Your task to perform on an android device: remove spam from my inbox in the gmail app Image 0: 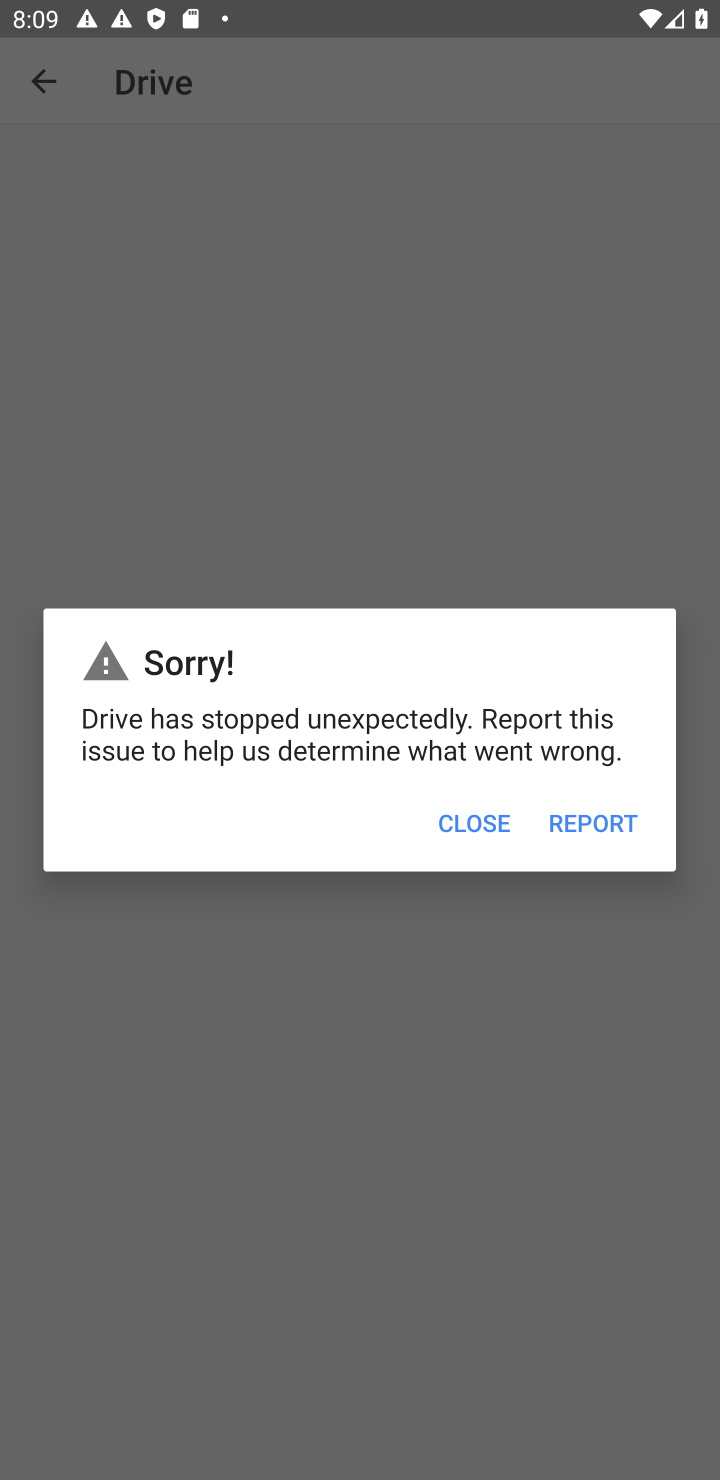
Step 0: press home button
Your task to perform on an android device: remove spam from my inbox in the gmail app Image 1: 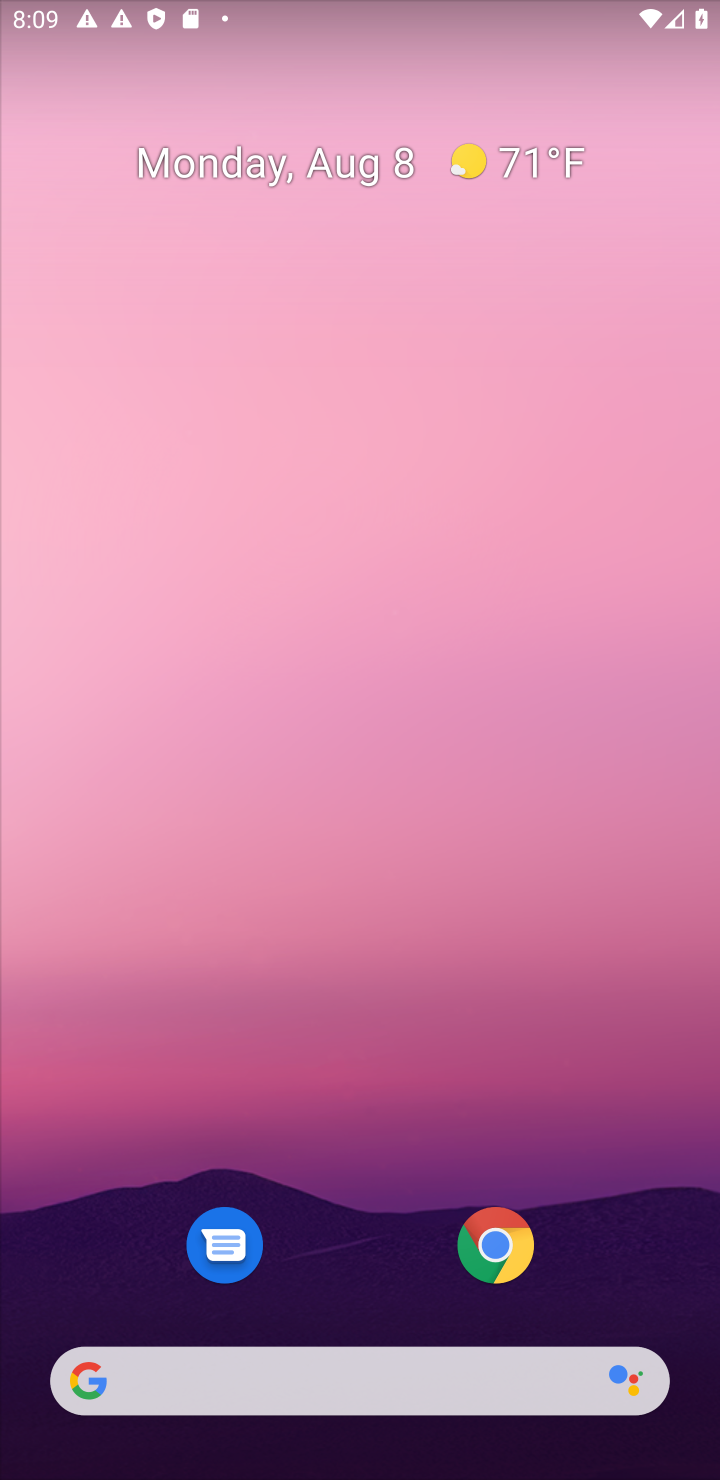
Step 1: drag from (324, 1319) to (279, 19)
Your task to perform on an android device: remove spam from my inbox in the gmail app Image 2: 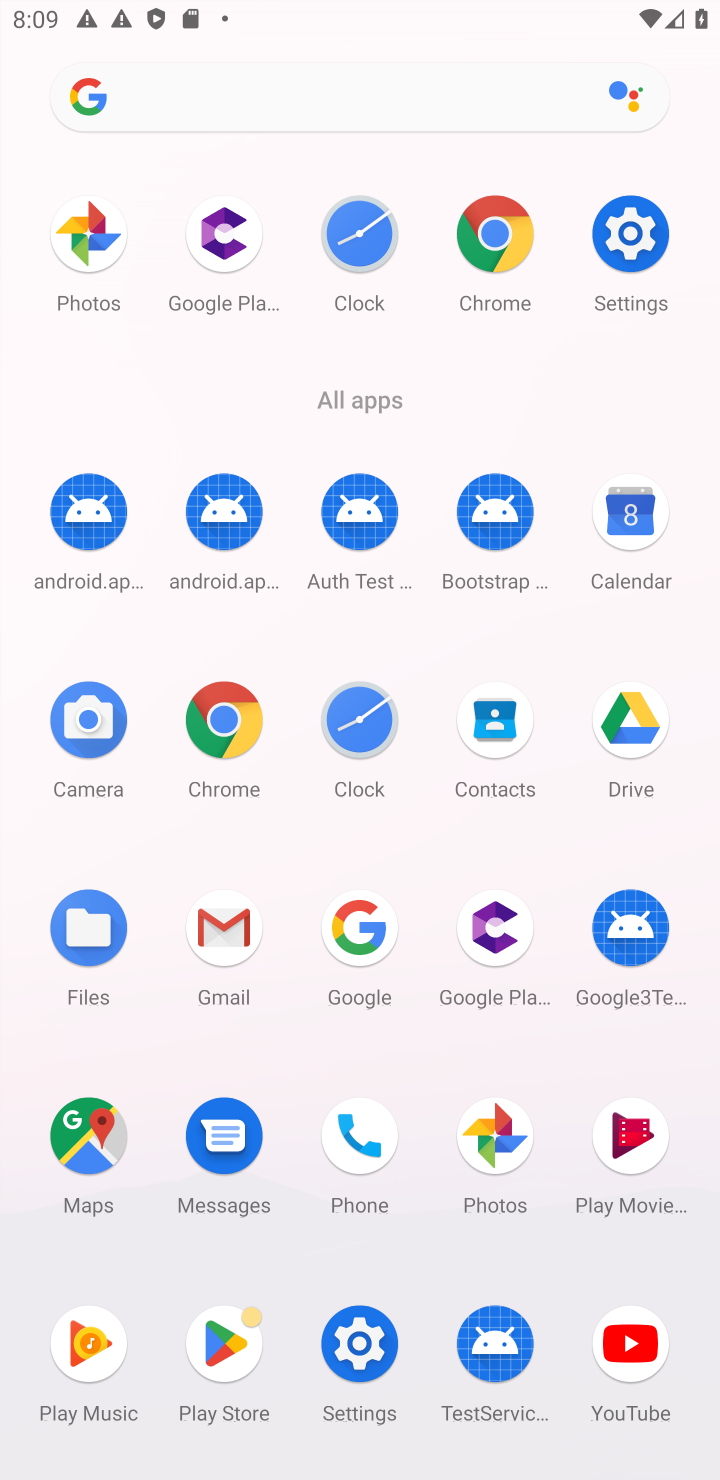
Step 2: click (221, 958)
Your task to perform on an android device: remove spam from my inbox in the gmail app Image 3: 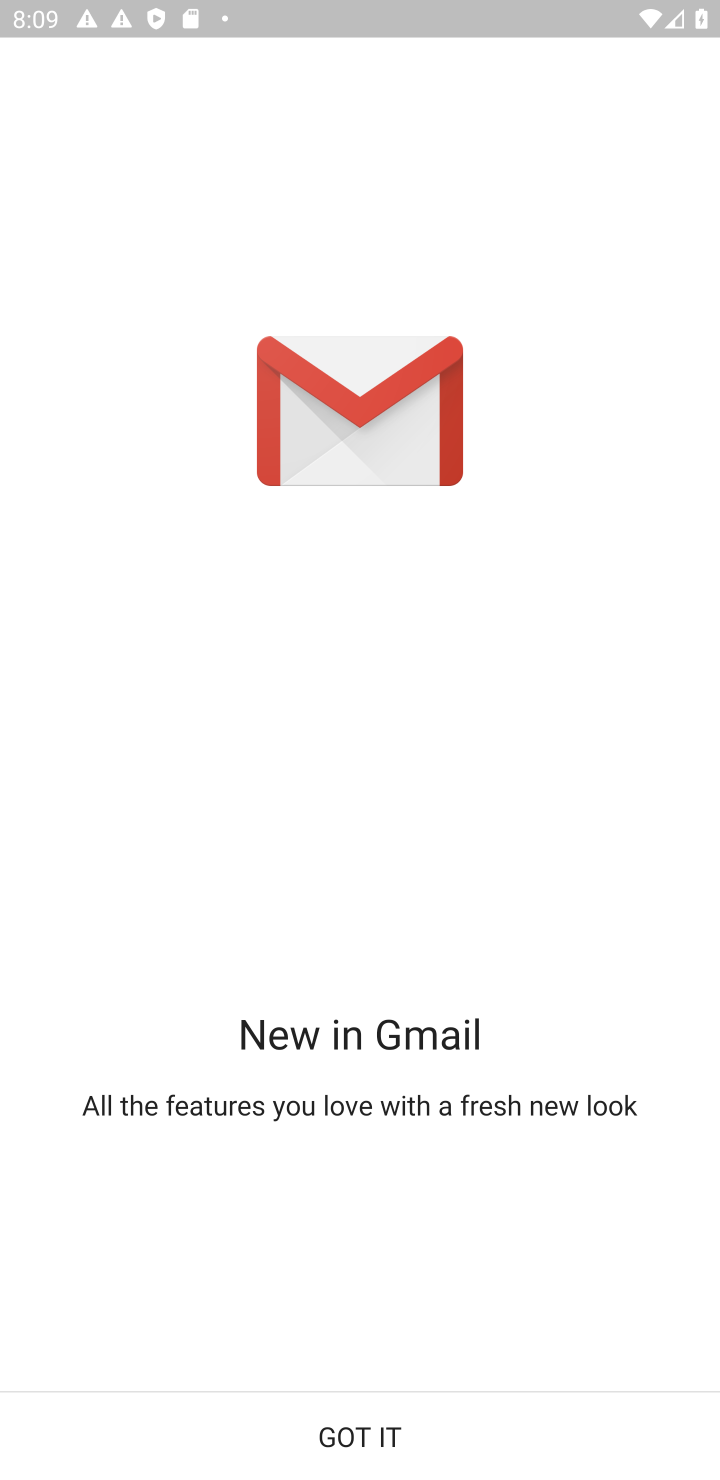
Step 3: click (349, 1436)
Your task to perform on an android device: remove spam from my inbox in the gmail app Image 4: 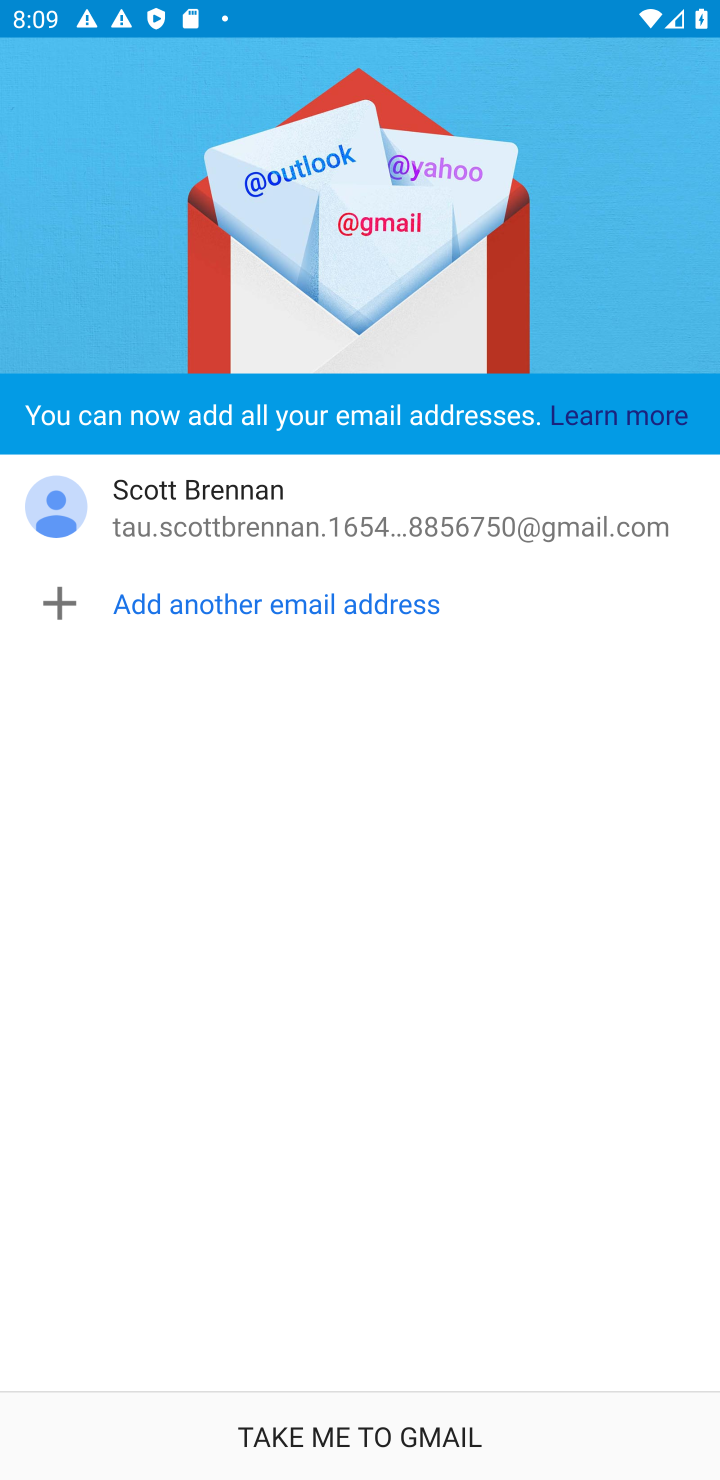
Step 4: click (349, 1428)
Your task to perform on an android device: remove spam from my inbox in the gmail app Image 5: 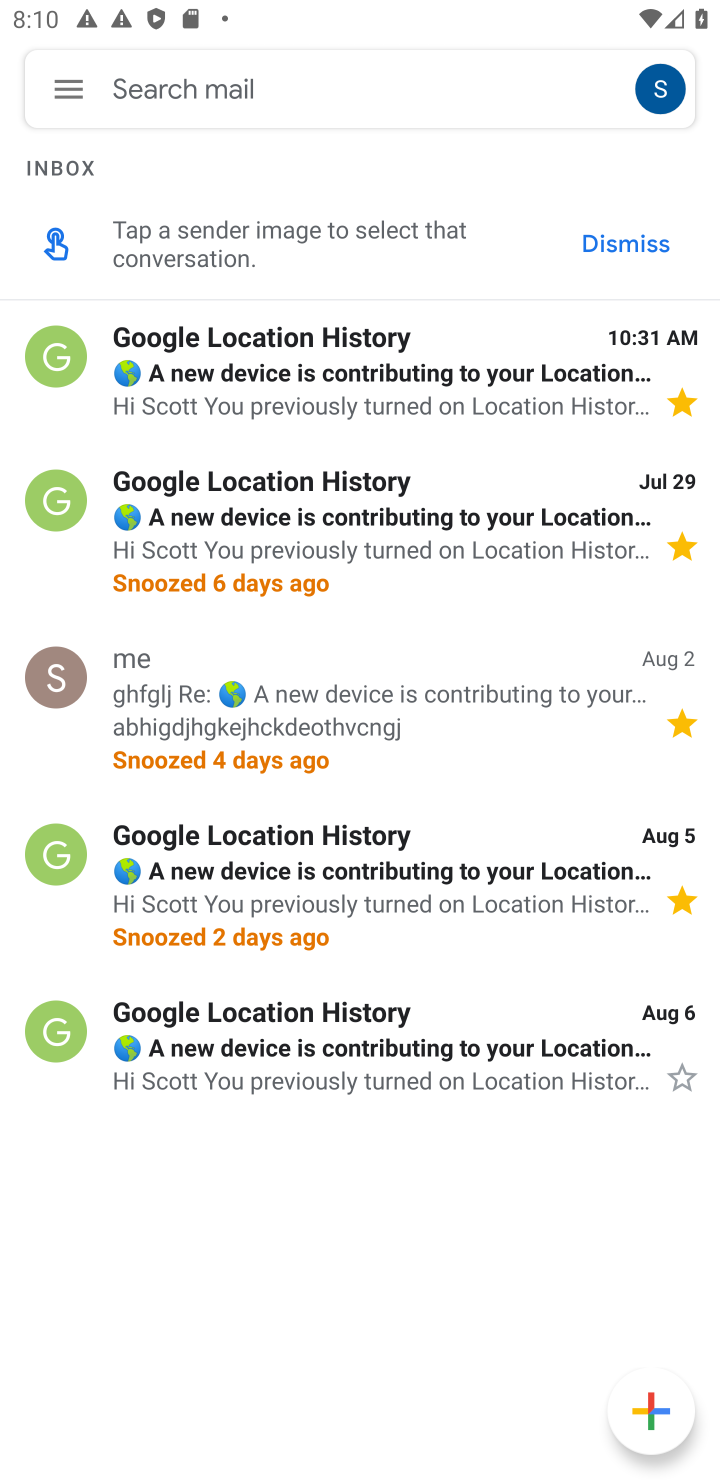
Step 5: click (72, 76)
Your task to perform on an android device: remove spam from my inbox in the gmail app Image 6: 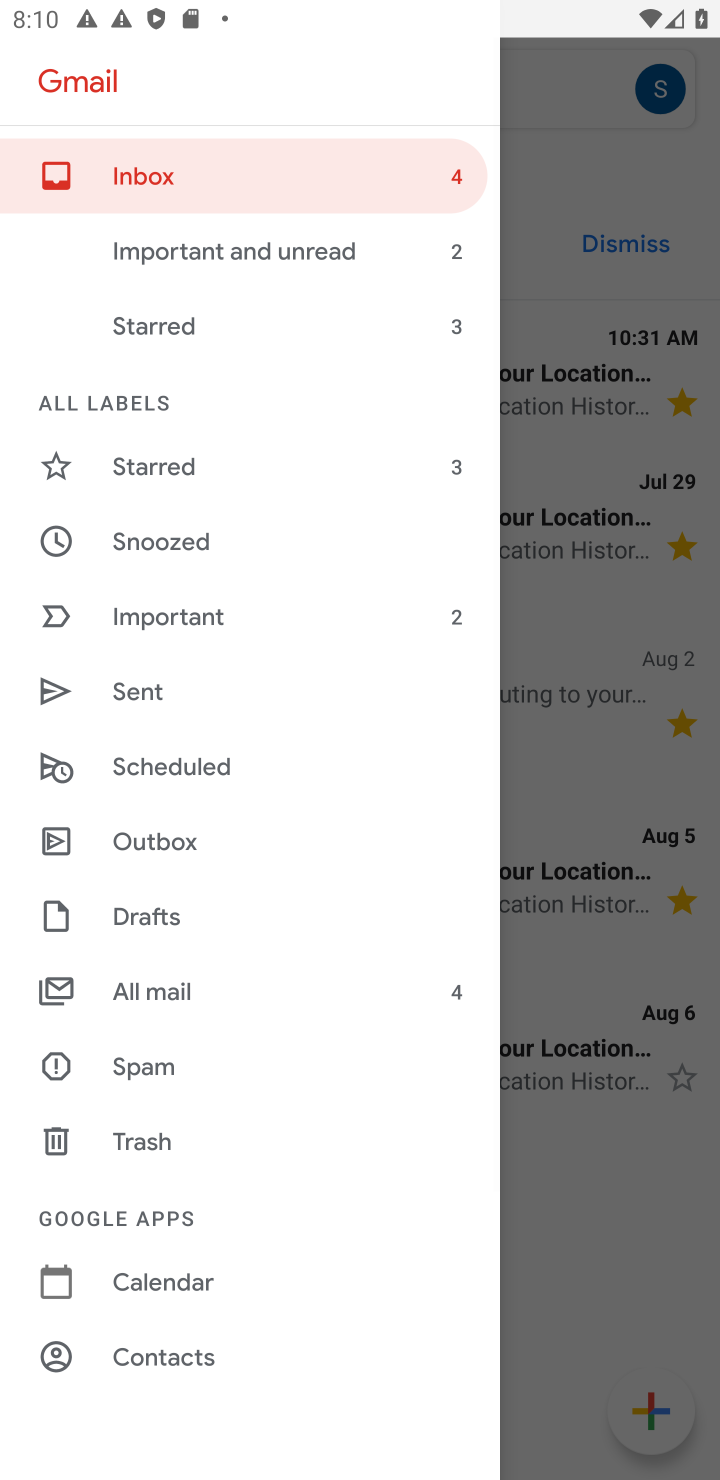
Step 6: click (157, 1084)
Your task to perform on an android device: remove spam from my inbox in the gmail app Image 7: 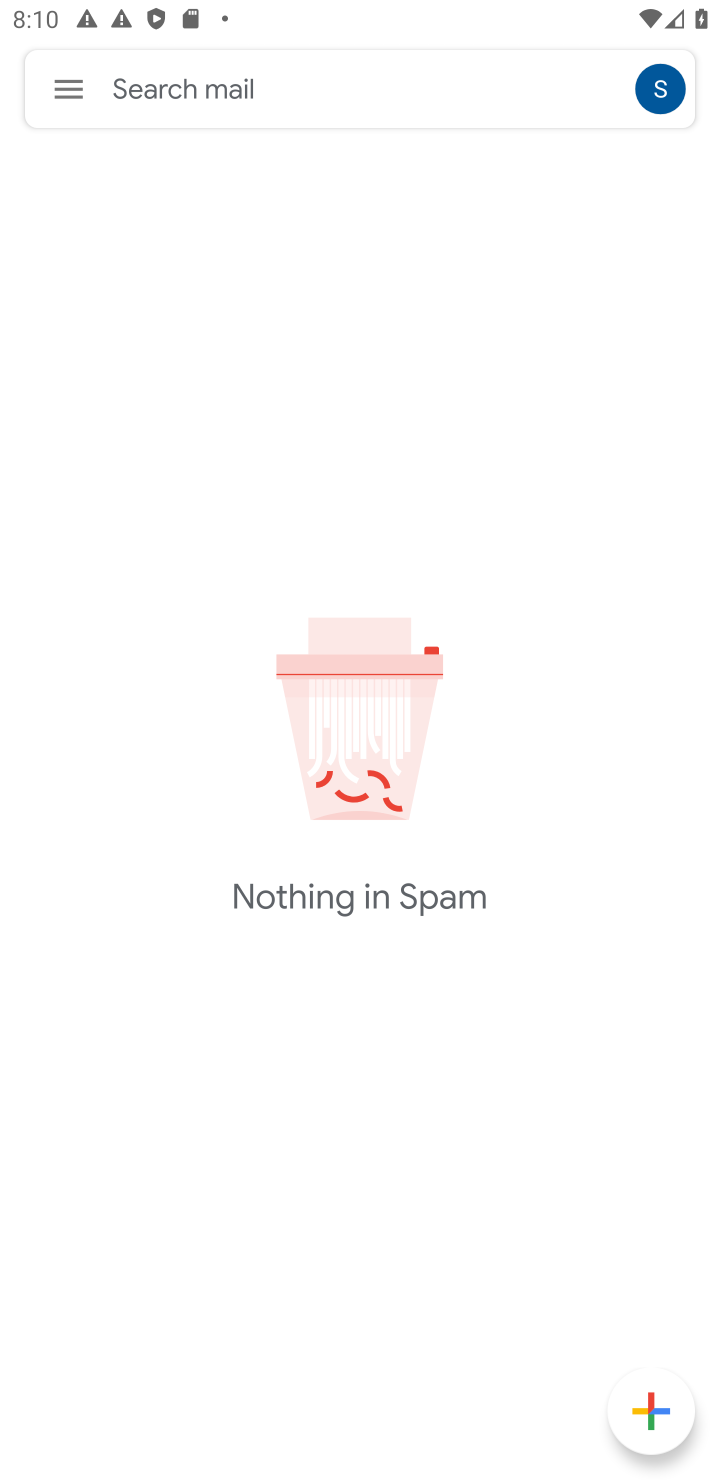
Step 7: task complete